Your task to perform on an android device: When is my next meeting? Image 0: 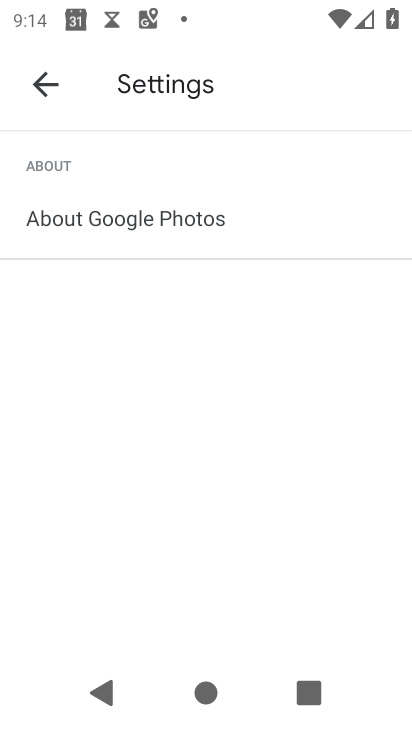
Step 0: press home button
Your task to perform on an android device: When is my next meeting? Image 1: 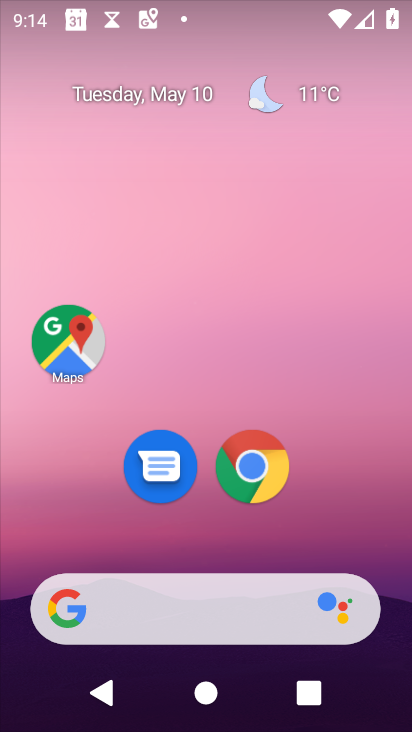
Step 1: drag from (330, 552) to (369, 67)
Your task to perform on an android device: When is my next meeting? Image 2: 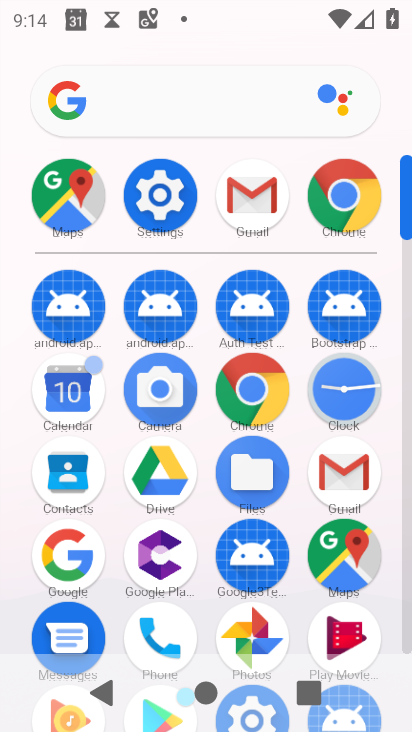
Step 2: click (81, 397)
Your task to perform on an android device: When is my next meeting? Image 3: 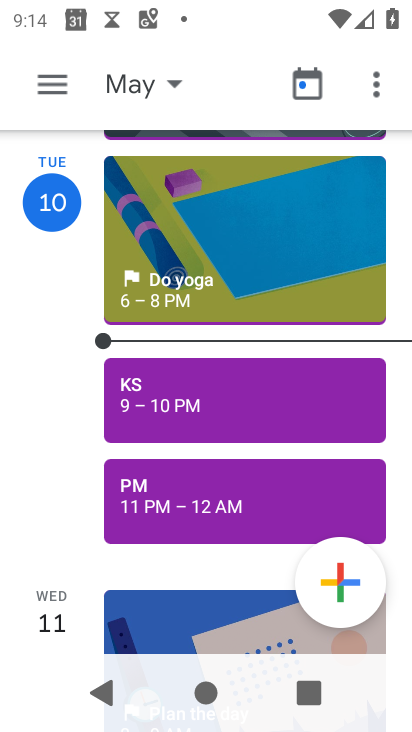
Step 3: click (155, 91)
Your task to perform on an android device: When is my next meeting? Image 4: 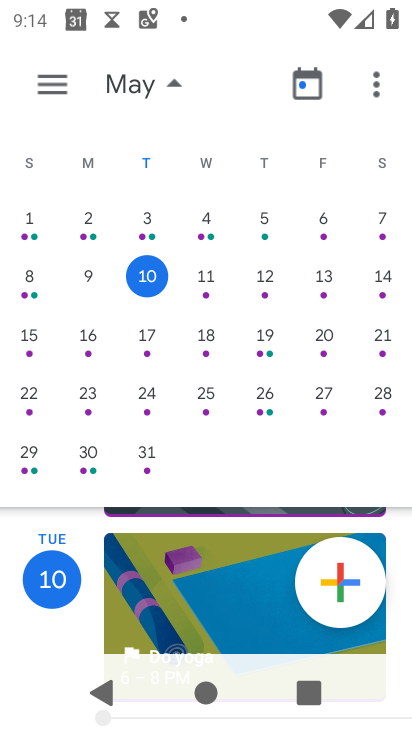
Step 4: click (138, 285)
Your task to perform on an android device: When is my next meeting? Image 5: 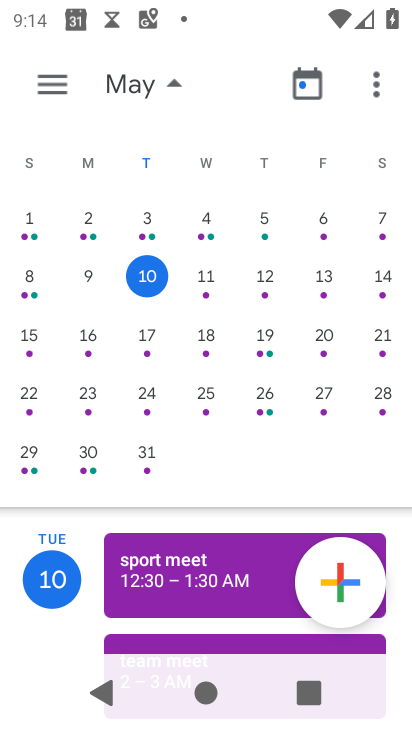
Step 5: task complete